Your task to perform on an android device: Go to Android settings Image 0: 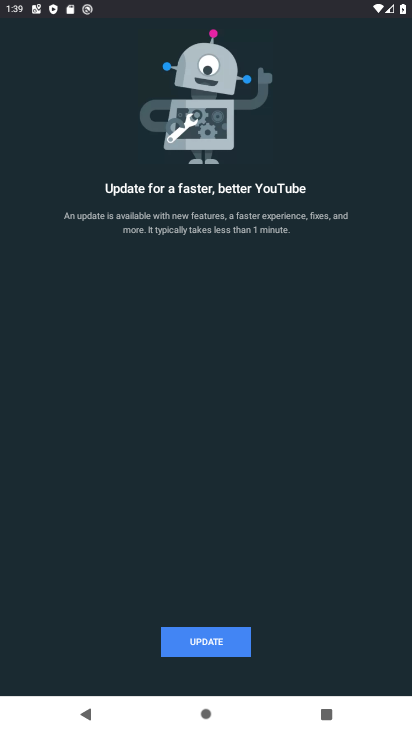
Step 0: press home button
Your task to perform on an android device: Go to Android settings Image 1: 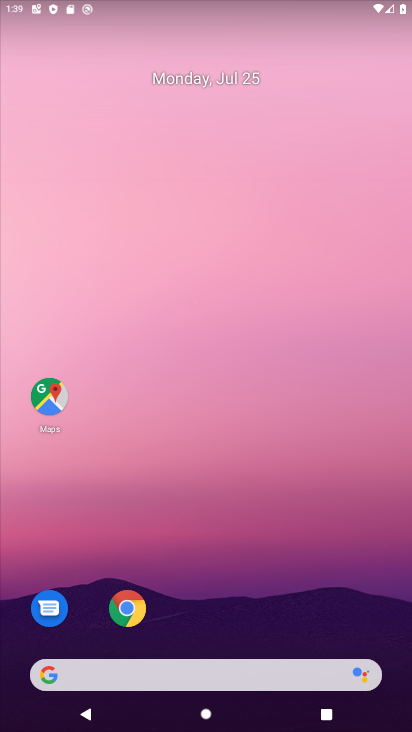
Step 1: drag from (290, 631) to (272, 281)
Your task to perform on an android device: Go to Android settings Image 2: 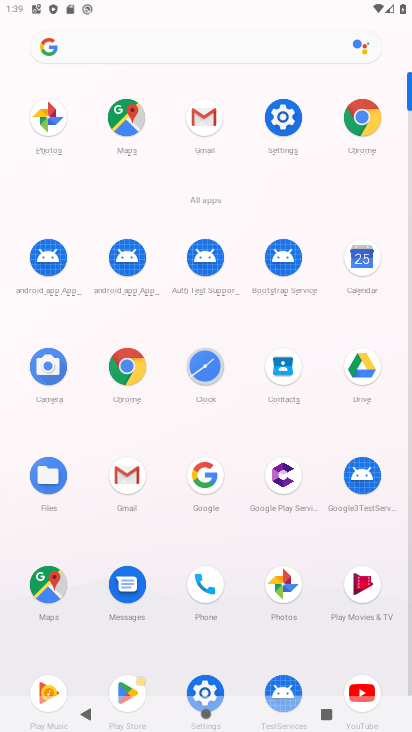
Step 2: click (284, 115)
Your task to perform on an android device: Go to Android settings Image 3: 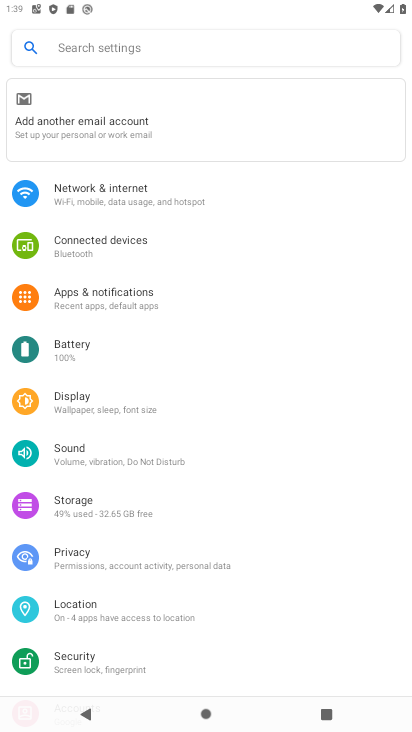
Step 3: task complete